Your task to perform on an android device: turn on location history Image 0: 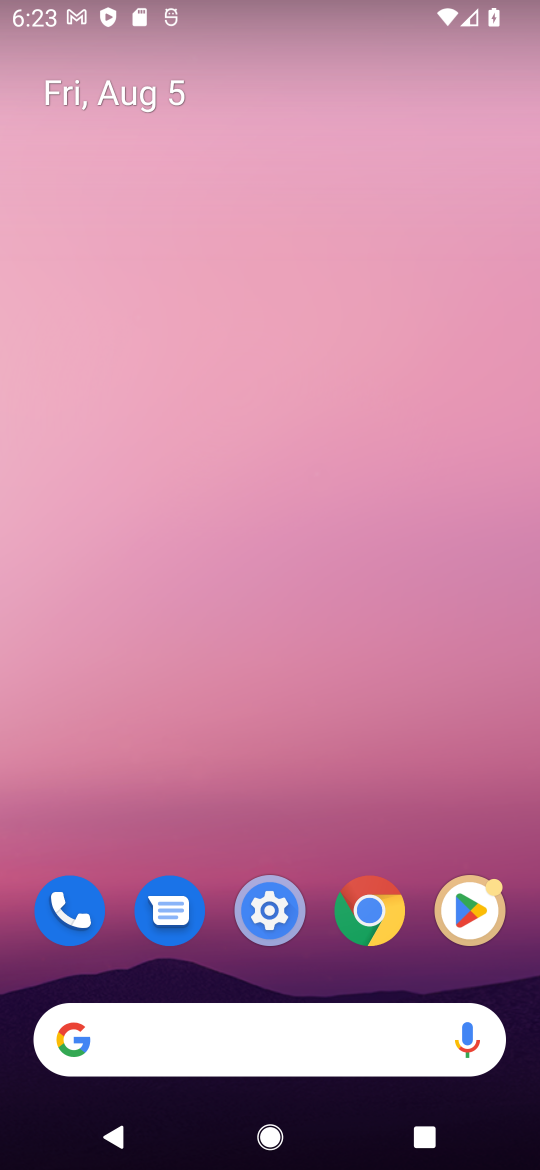
Step 0: drag from (334, 1044) to (322, 23)
Your task to perform on an android device: turn on location history Image 1: 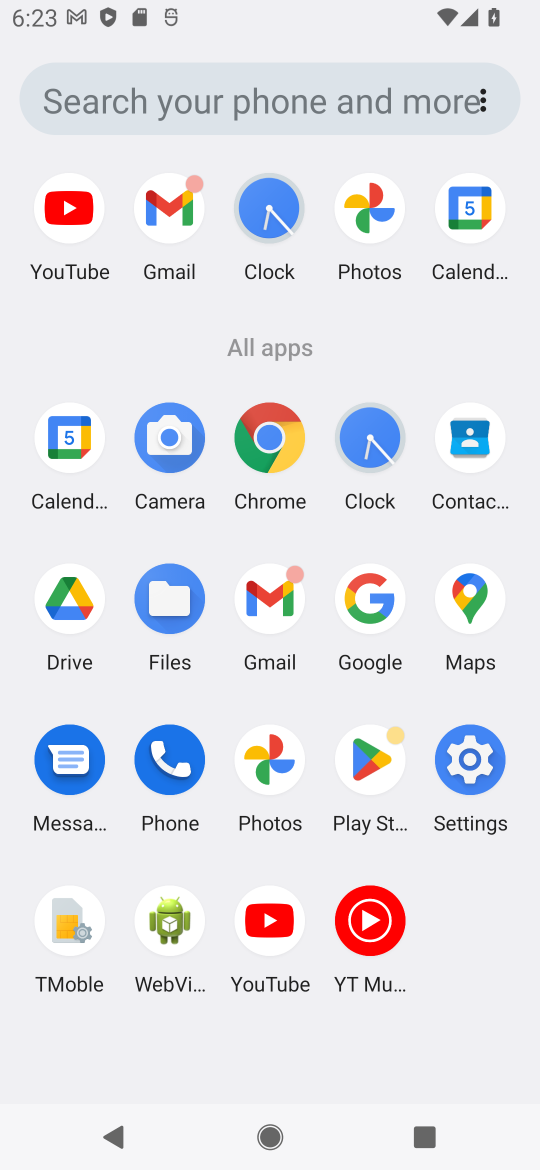
Step 1: click (457, 765)
Your task to perform on an android device: turn on location history Image 2: 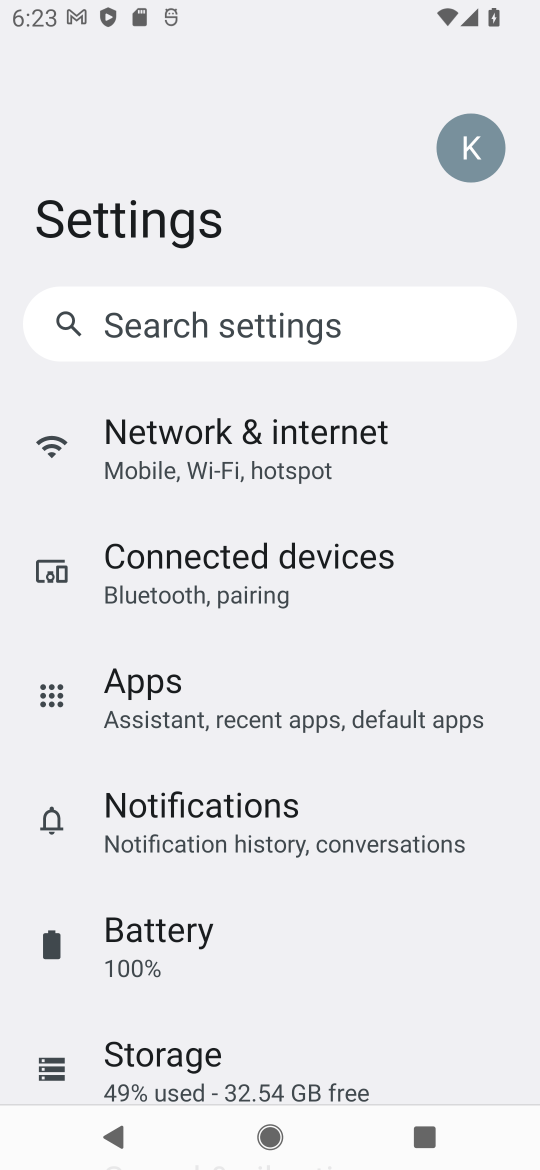
Step 2: drag from (245, 1014) to (292, 387)
Your task to perform on an android device: turn on location history Image 3: 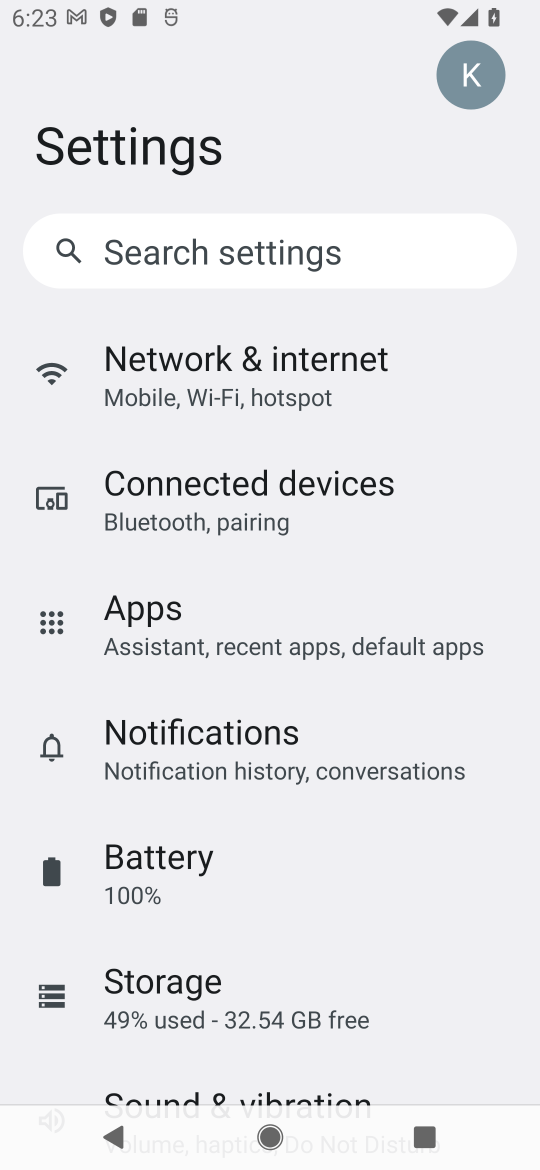
Step 3: drag from (338, 1045) to (290, 315)
Your task to perform on an android device: turn on location history Image 4: 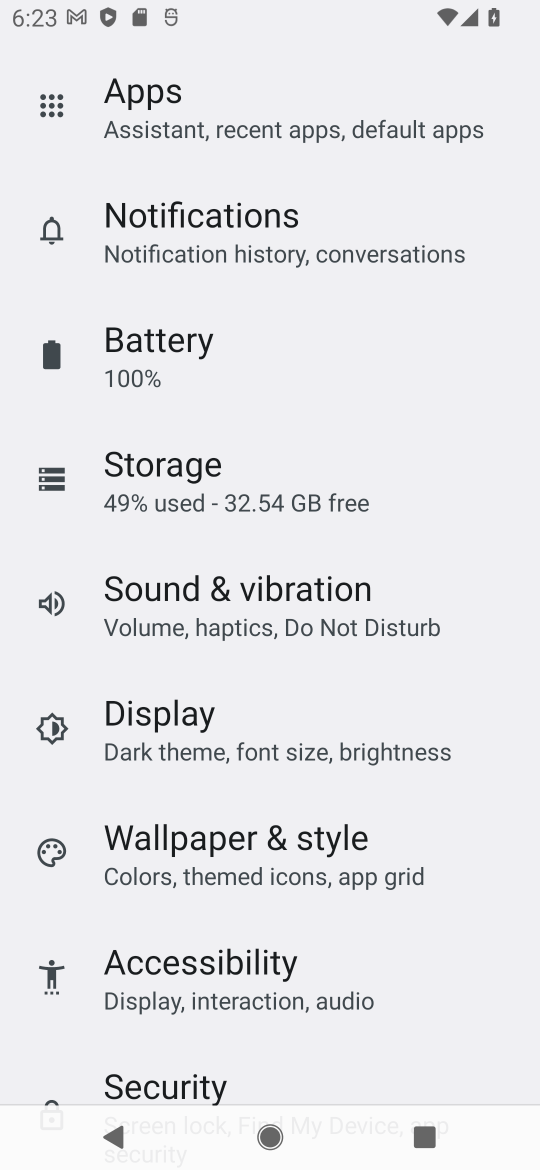
Step 4: drag from (298, 1041) to (368, 320)
Your task to perform on an android device: turn on location history Image 5: 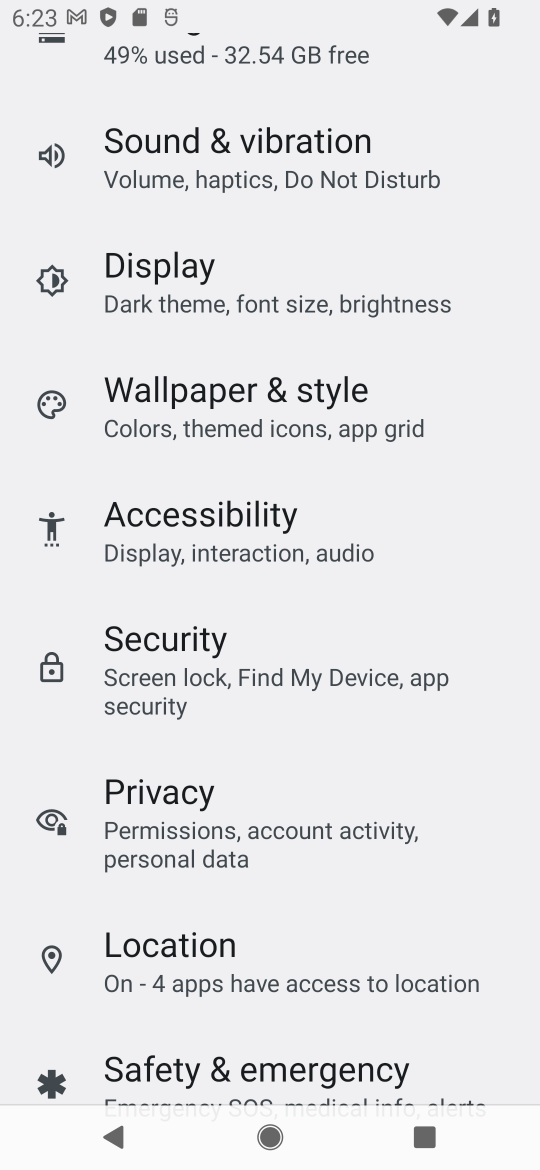
Step 5: click (227, 965)
Your task to perform on an android device: turn on location history Image 6: 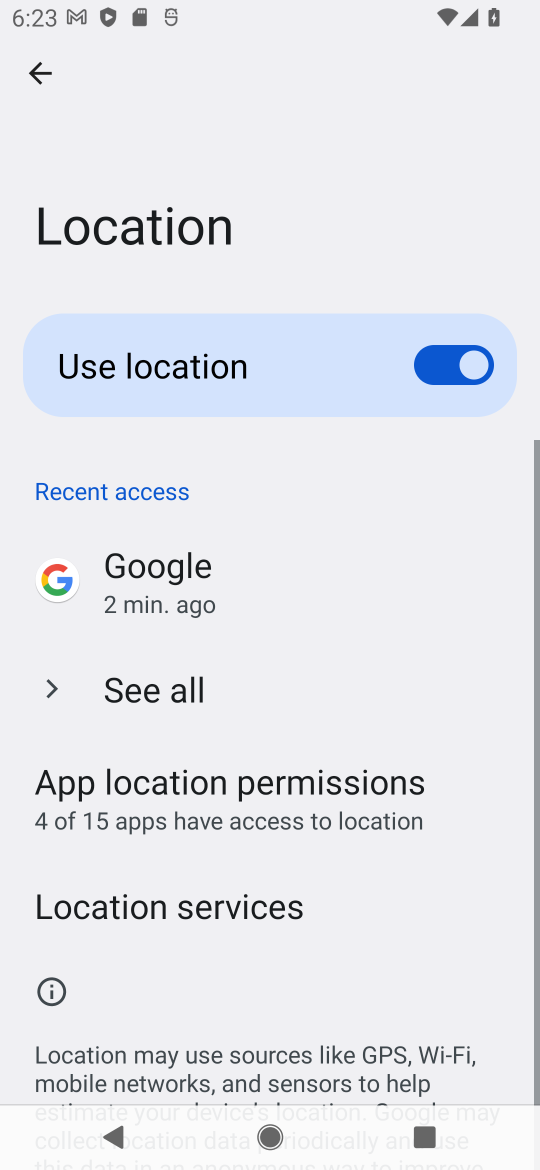
Step 6: drag from (303, 1027) to (348, 275)
Your task to perform on an android device: turn on location history Image 7: 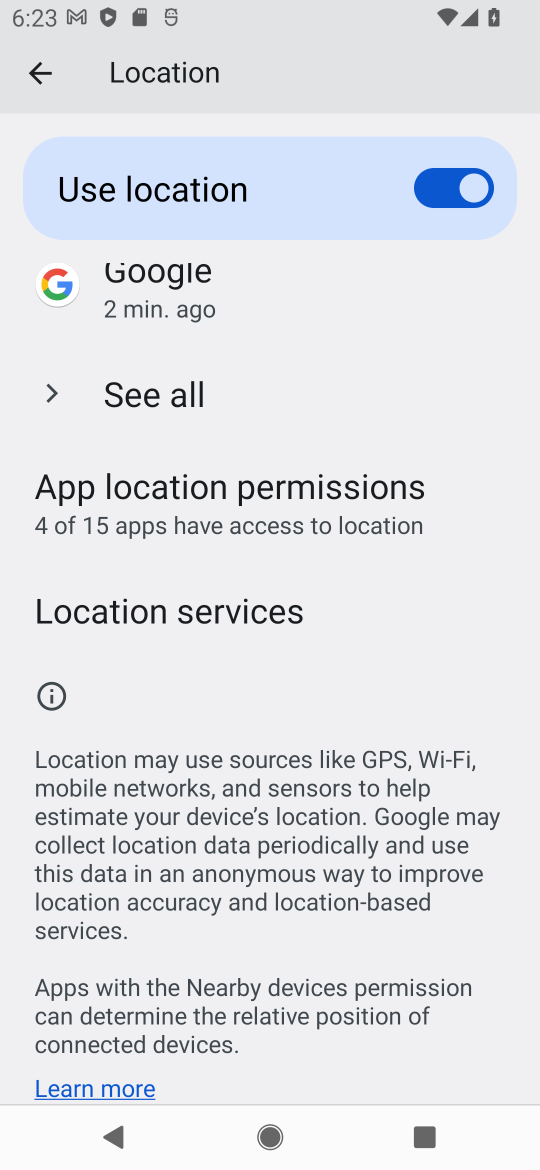
Step 7: click (288, 623)
Your task to perform on an android device: turn on location history Image 8: 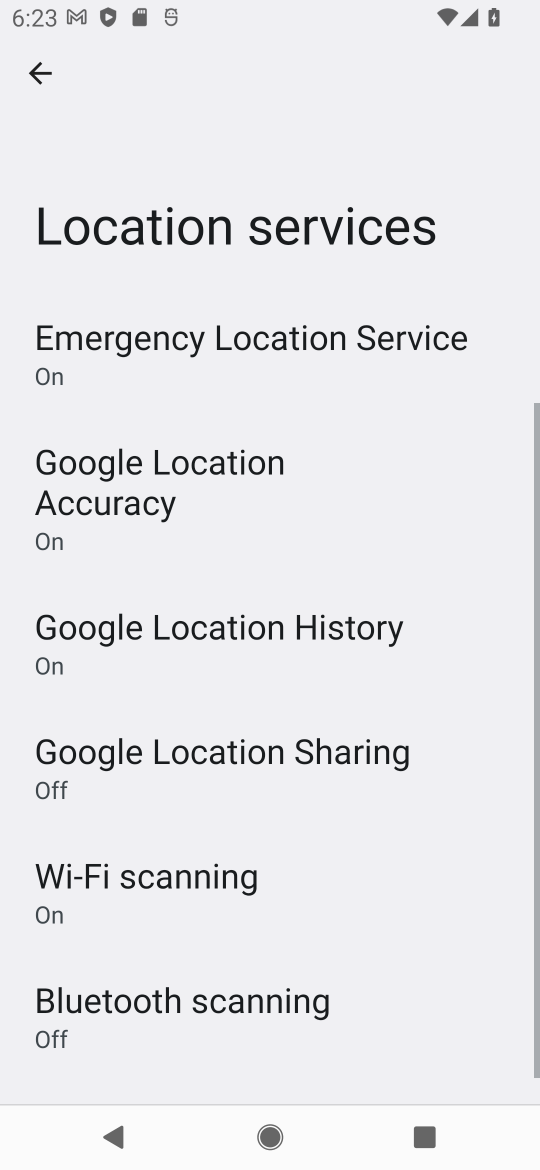
Step 8: click (288, 623)
Your task to perform on an android device: turn on location history Image 9: 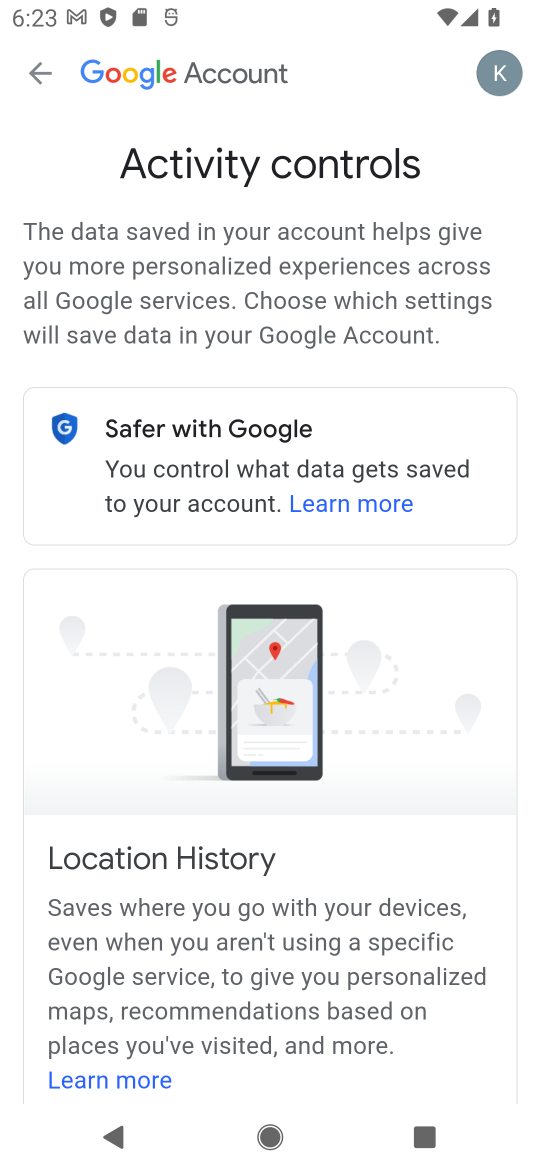
Step 9: task complete